Your task to perform on an android device: change text size in settings app Image 0: 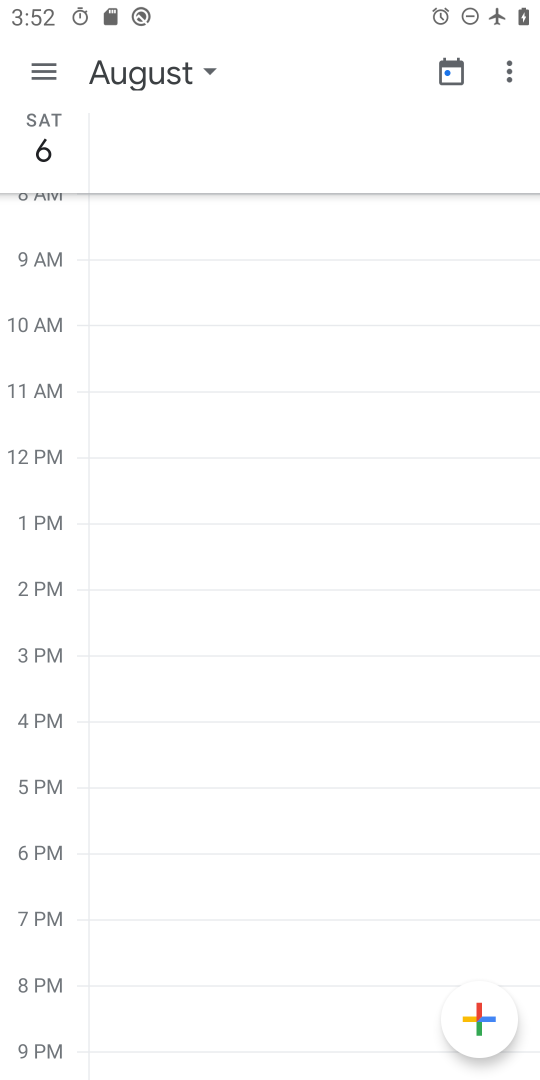
Step 0: press home button
Your task to perform on an android device: change text size in settings app Image 1: 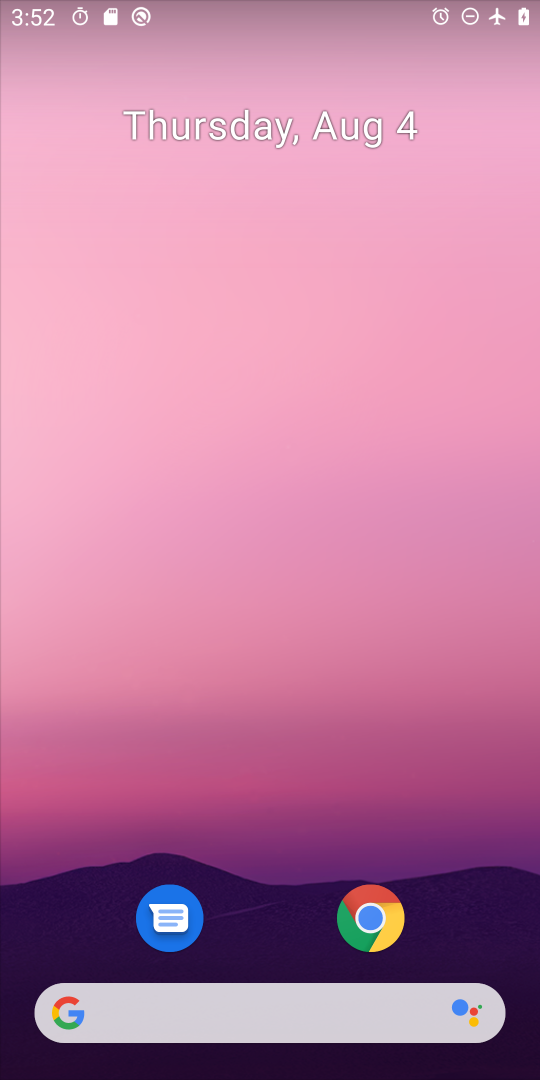
Step 1: drag from (271, 951) to (223, 224)
Your task to perform on an android device: change text size in settings app Image 2: 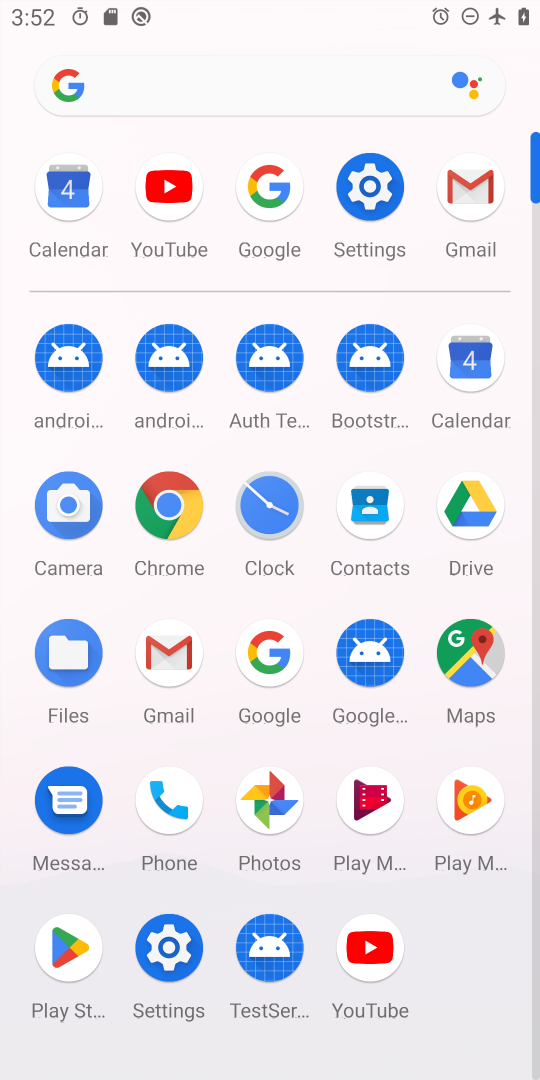
Step 2: click (377, 192)
Your task to perform on an android device: change text size in settings app Image 3: 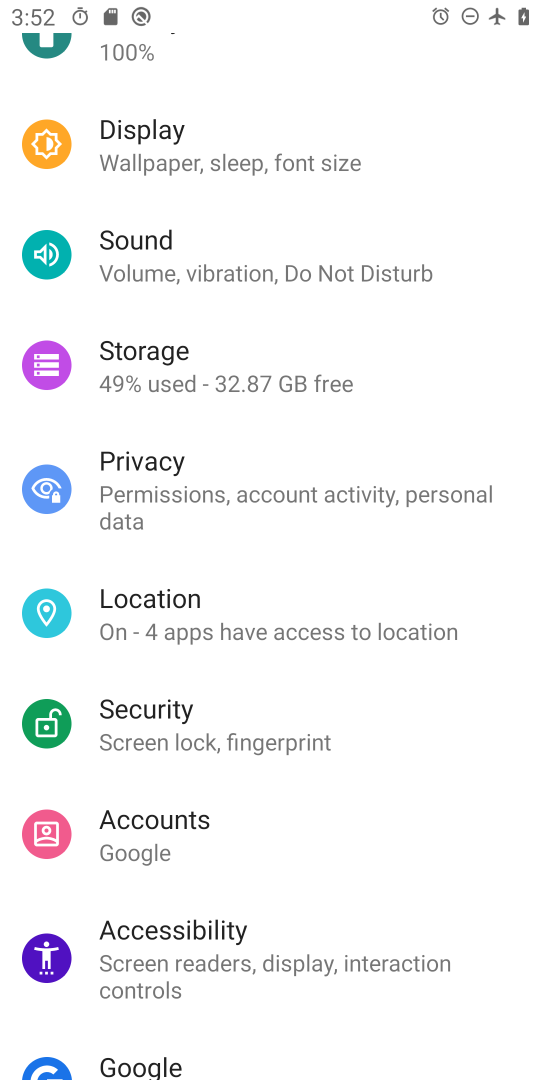
Step 3: click (227, 184)
Your task to perform on an android device: change text size in settings app Image 4: 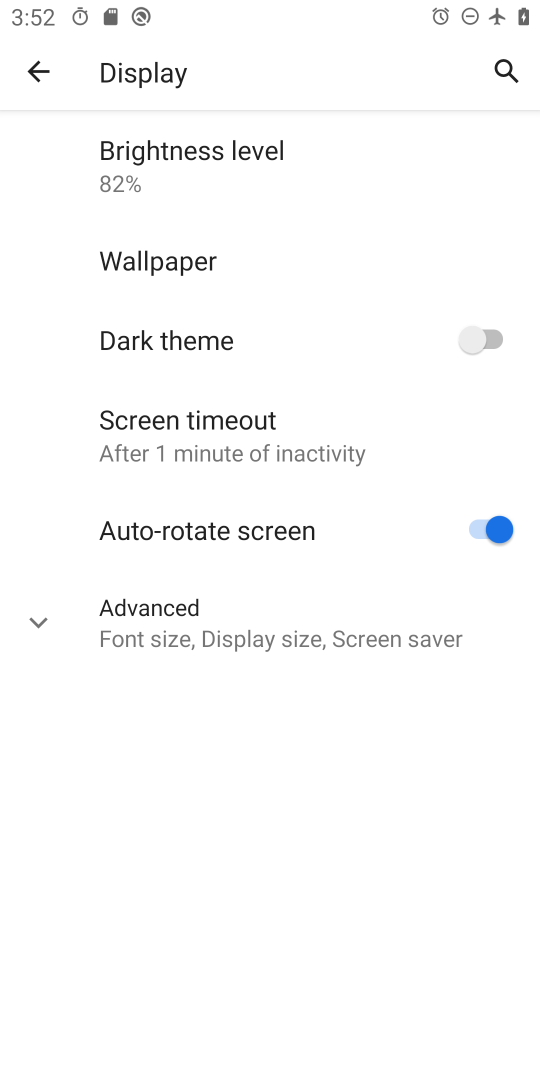
Step 4: click (202, 637)
Your task to perform on an android device: change text size in settings app Image 5: 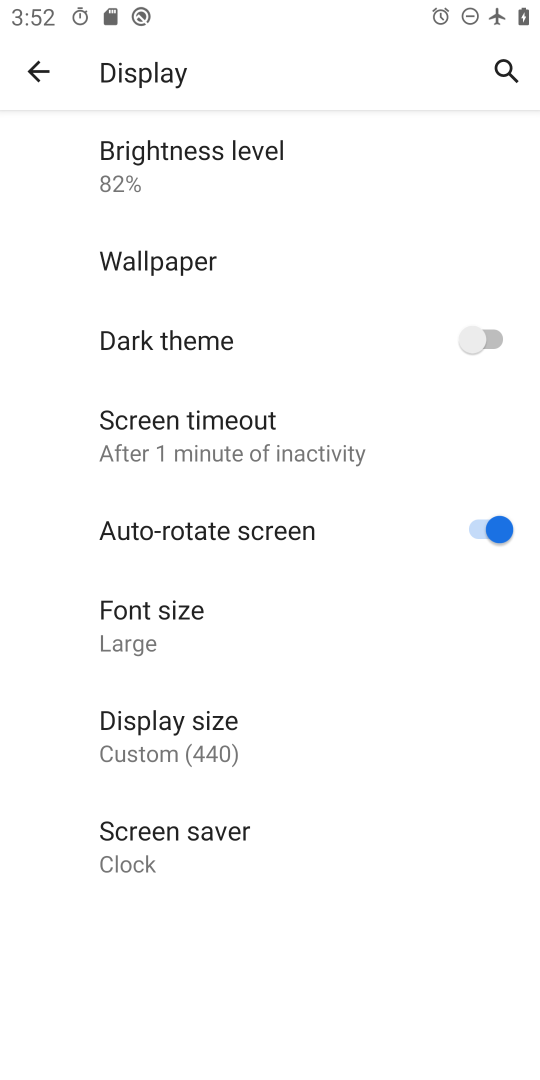
Step 5: click (202, 637)
Your task to perform on an android device: change text size in settings app Image 6: 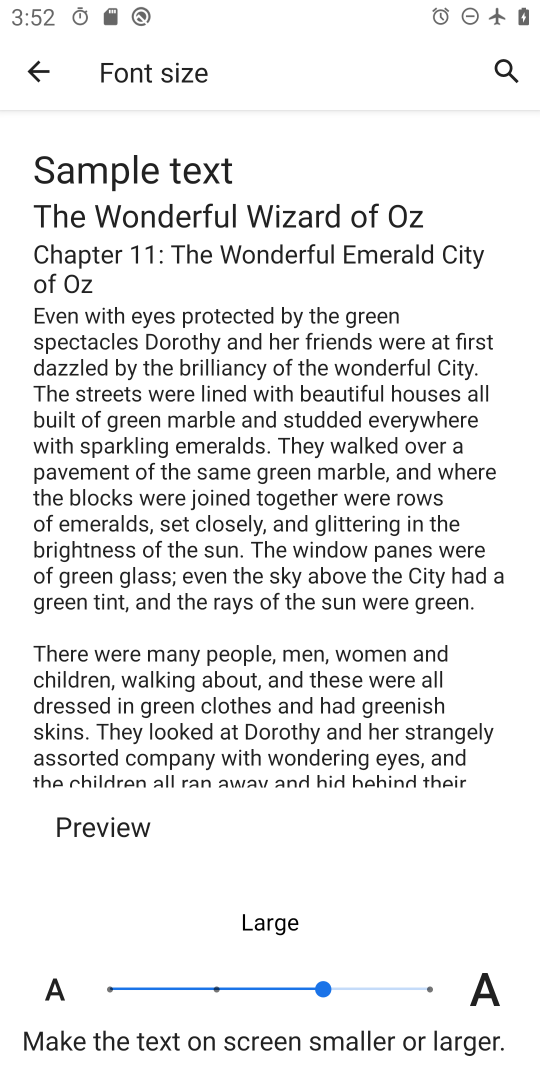
Step 6: click (426, 984)
Your task to perform on an android device: change text size in settings app Image 7: 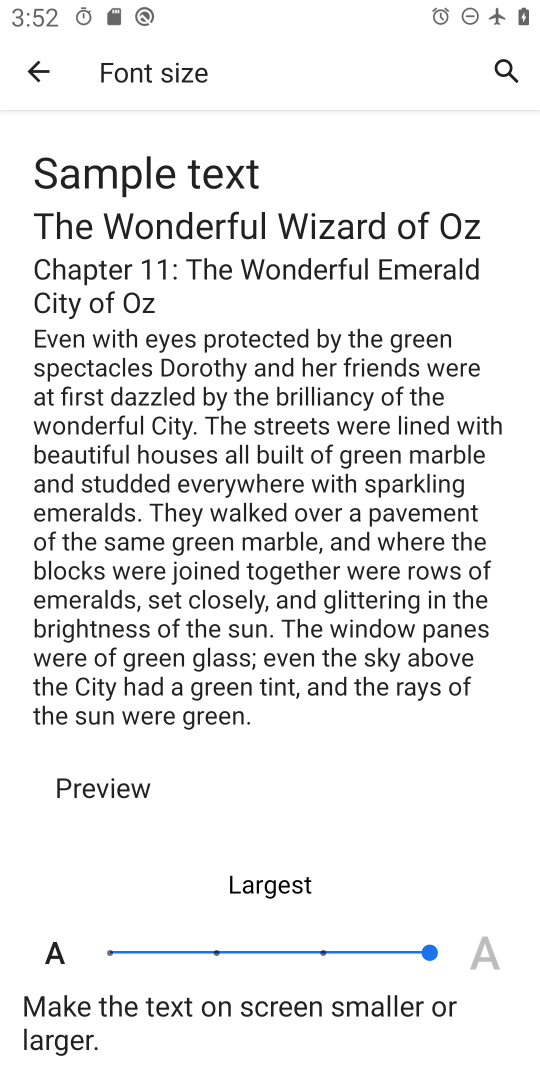
Step 7: task complete